Your task to perform on an android device: change notifications settings Image 0: 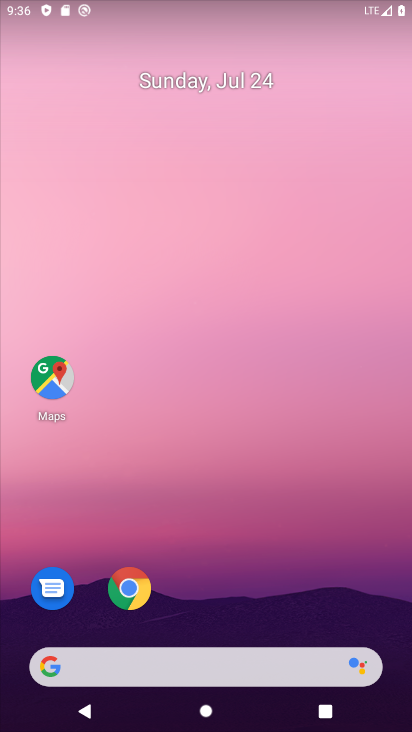
Step 0: drag from (257, 670) to (60, 34)
Your task to perform on an android device: change notifications settings Image 1: 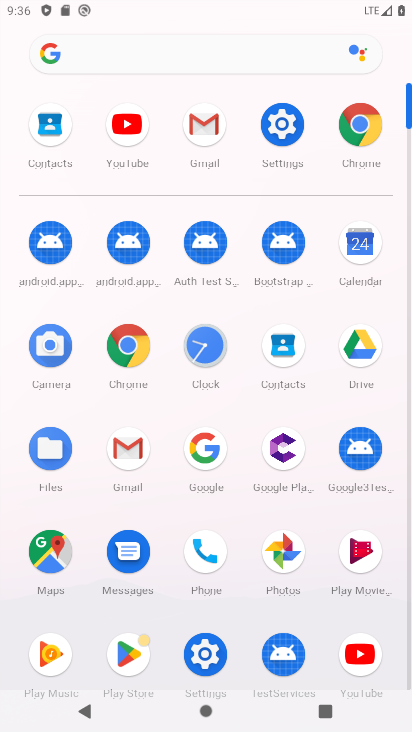
Step 1: click (292, 120)
Your task to perform on an android device: change notifications settings Image 2: 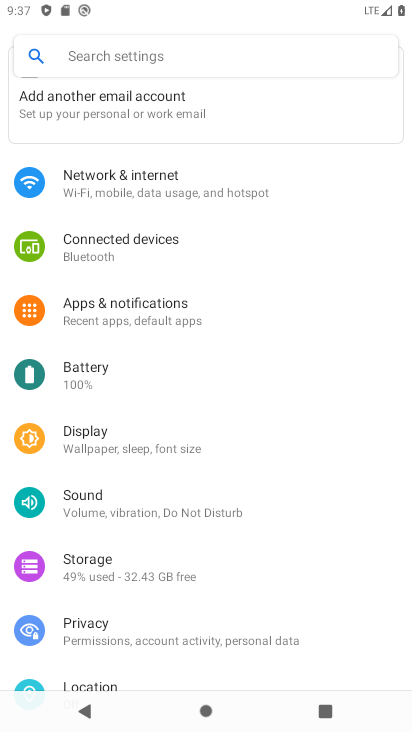
Step 2: click (120, 316)
Your task to perform on an android device: change notifications settings Image 3: 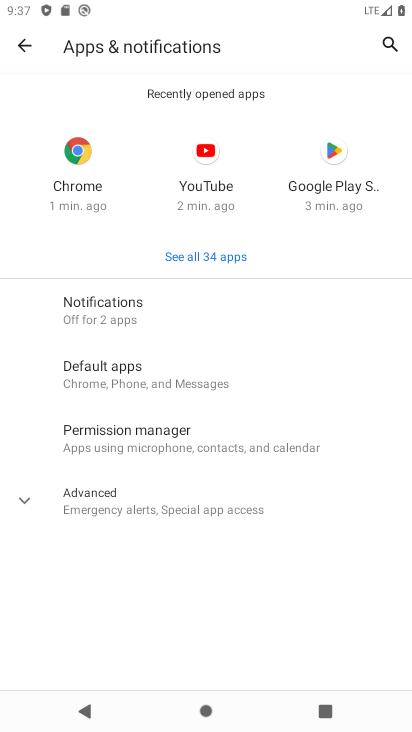
Step 3: task complete